Your task to perform on an android device: What's the weather going to be this weekend? Image 0: 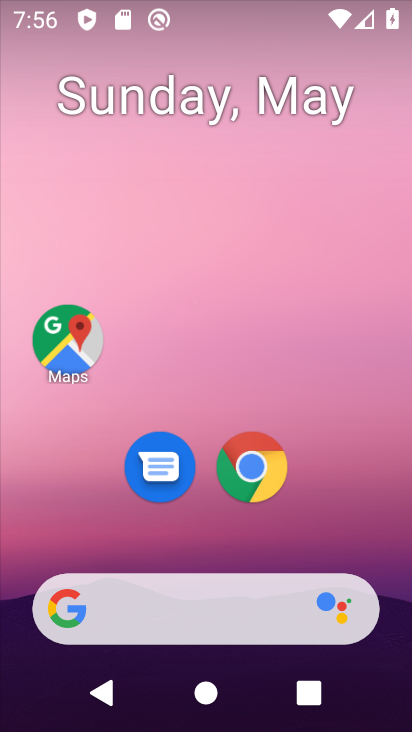
Step 0: click (173, 618)
Your task to perform on an android device: What's the weather going to be this weekend? Image 1: 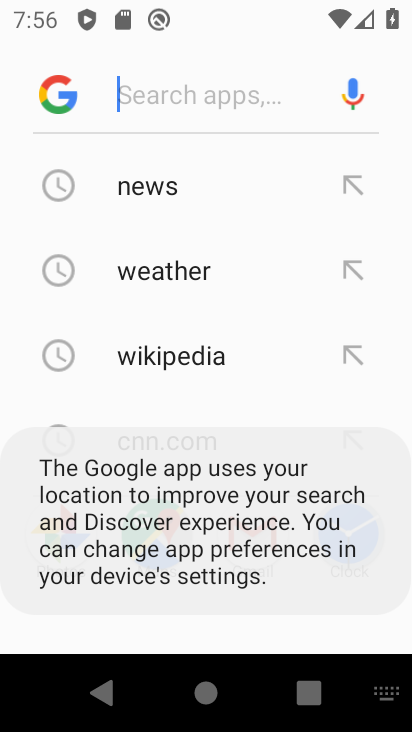
Step 1: click (192, 287)
Your task to perform on an android device: What's the weather going to be this weekend? Image 2: 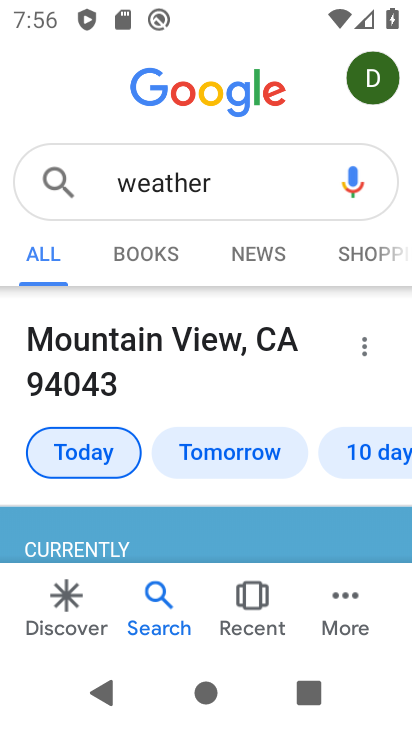
Step 2: click (379, 449)
Your task to perform on an android device: What's the weather going to be this weekend? Image 3: 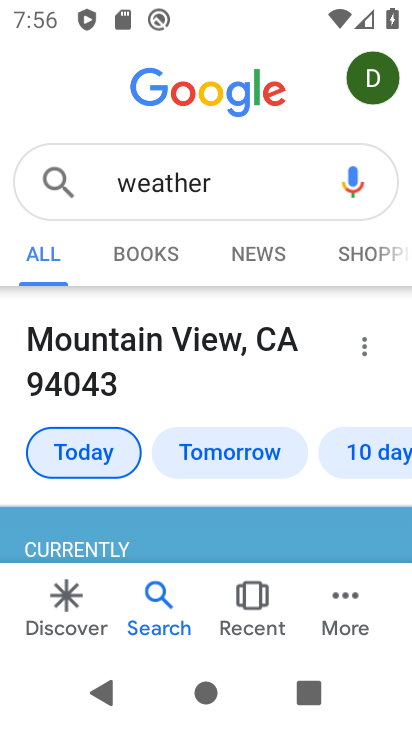
Step 3: drag from (187, 524) to (270, 207)
Your task to perform on an android device: What's the weather going to be this weekend? Image 4: 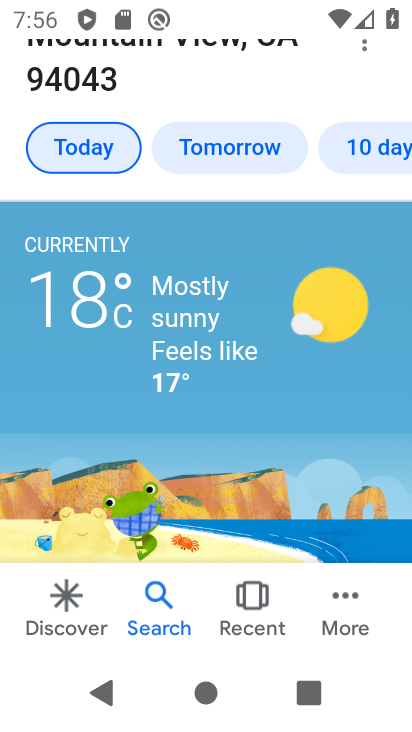
Step 4: drag from (178, 451) to (236, 97)
Your task to perform on an android device: What's the weather going to be this weekend? Image 5: 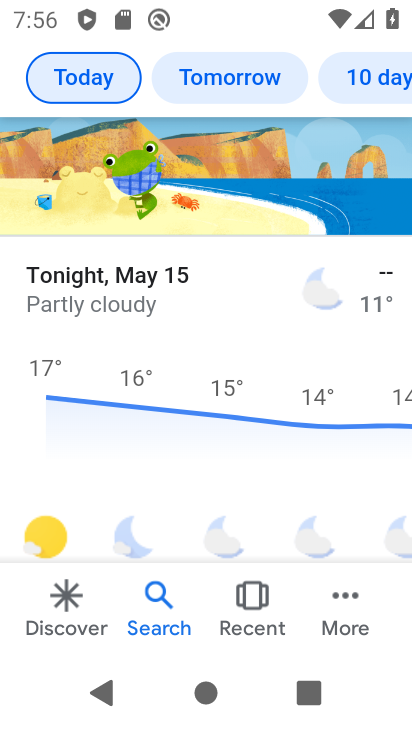
Step 5: drag from (152, 378) to (219, 160)
Your task to perform on an android device: What's the weather going to be this weekend? Image 6: 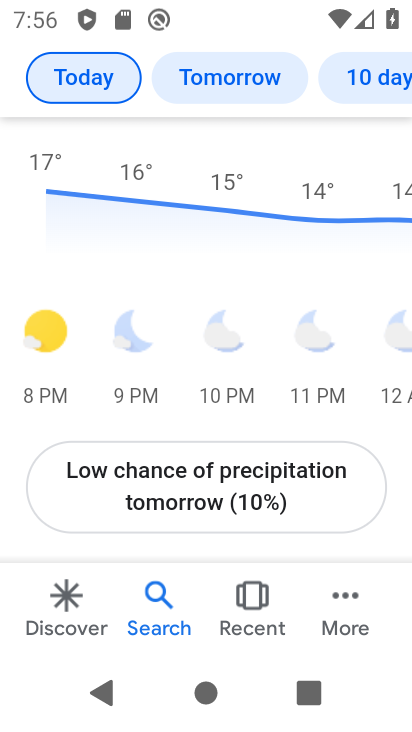
Step 6: drag from (148, 514) to (268, 173)
Your task to perform on an android device: What's the weather going to be this weekend? Image 7: 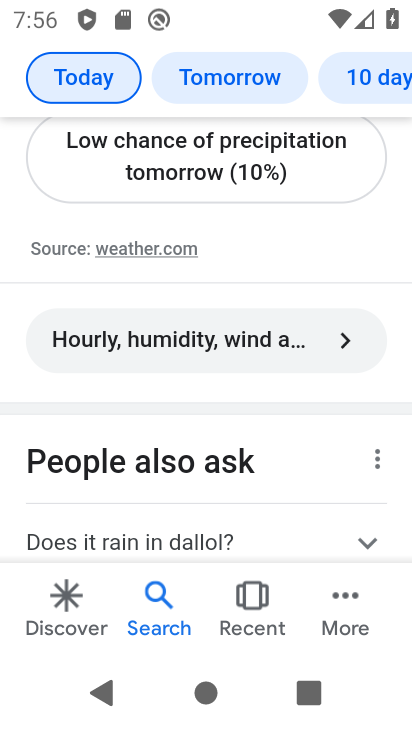
Step 7: click (155, 247)
Your task to perform on an android device: What's the weather going to be this weekend? Image 8: 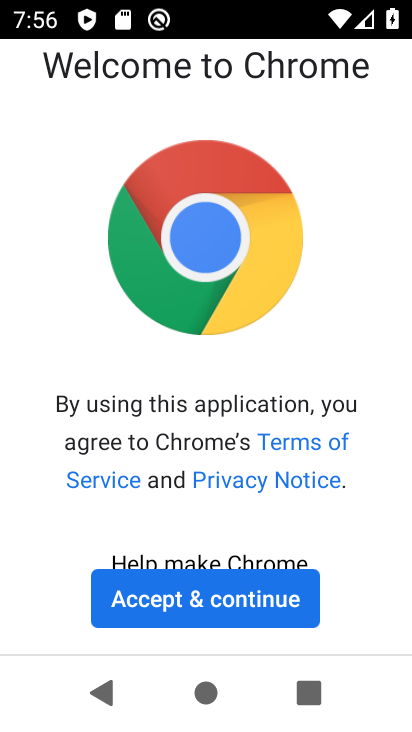
Step 8: click (162, 611)
Your task to perform on an android device: What's the weather going to be this weekend? Image 9: 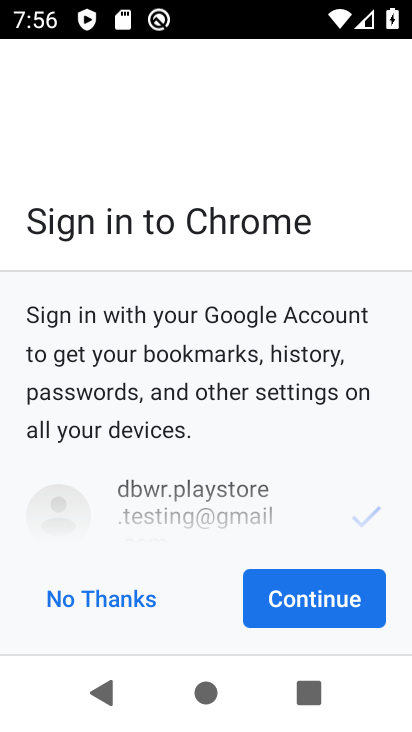
Step 9: click (286, 607)
Your task to perform on an android device: What's the weather going to be this weekend? Image 10: 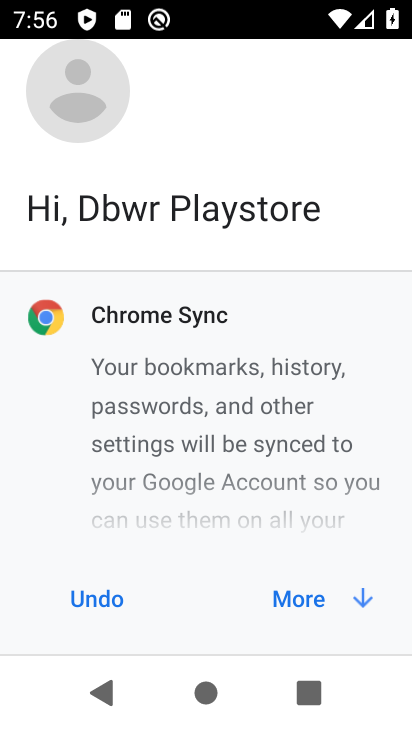
Step 10: click (286, 607)
Your task to perform on an android device: What's the weather going to be this weekend? Image 11: 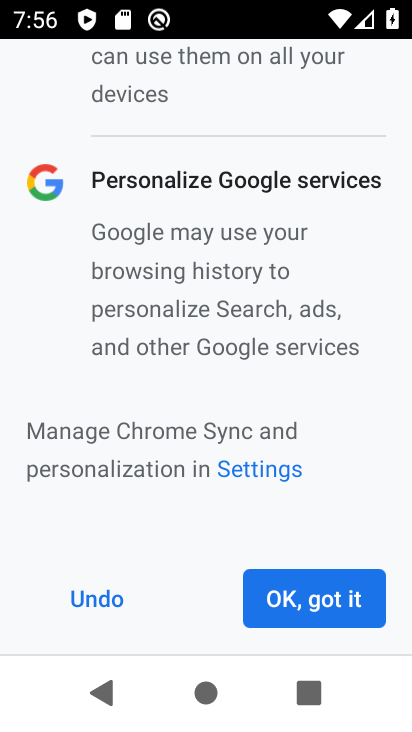
Step 11: click (286, 607)
Your task to perform on an android device: What's the weather going to be this weekend? Image 12: 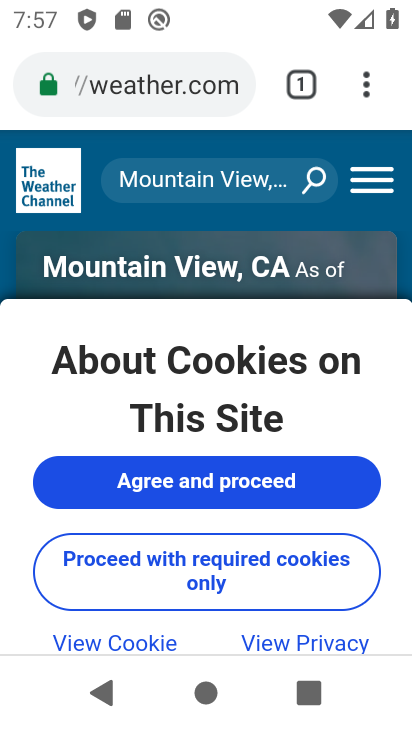
Step 12: drag from (158, 585) to (211, 278)
Your task to perform on an android device: What's the weather going to be this weekend? Image 13: 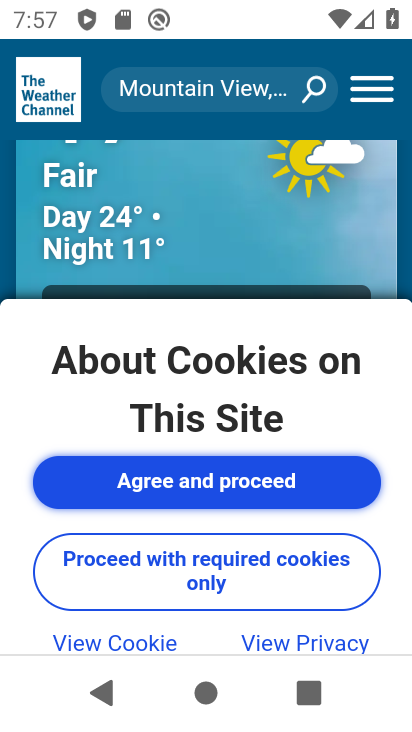
Step 13: drag from (187, 650) to (236, 153)
Your task to perform on an android device: What's the weather going to be this weekend? Image 14: 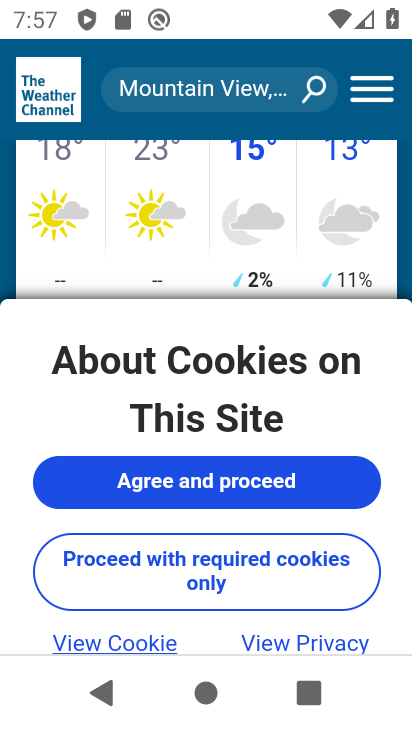
Step 14: click (213, 501)
Your task to perform on an android device: What's the weather going to be this weekend? Image 15: 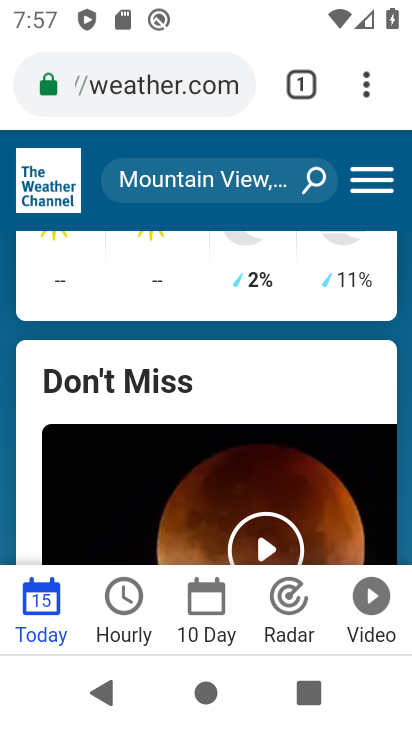
Step 15: drag from (140, 290) to (126, 557)
Your task to perform on an android device: What's the weather going to be this weekend? Image 16: 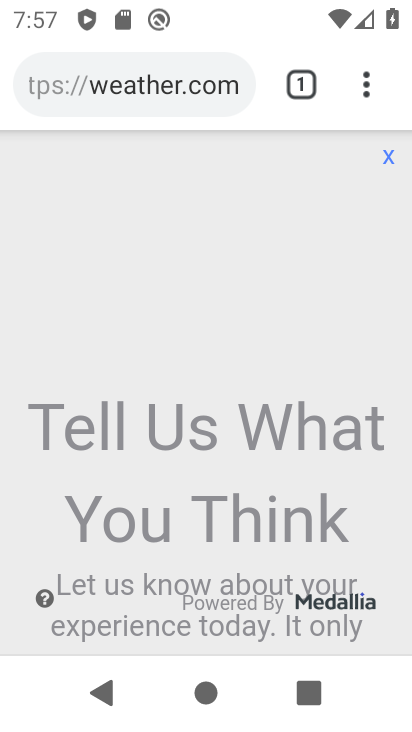
Step 16: click (381, 162)
Your task to perform on an android device: What's the weather going to be this weekend? Image 17: 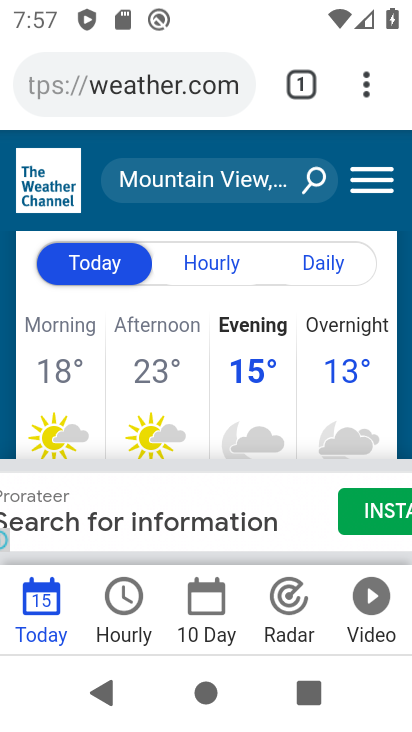
Step 17: drag from (182, 384) to (233, 150)
Your task to perform on an android device: What's the weather going to be this weekend? Image 18: 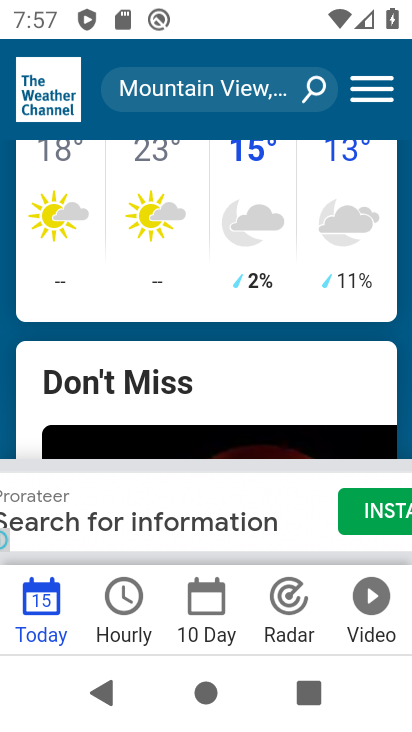
Step 18: drag from (248, 378) to (288, 129)
Your task to perform on an android device: What's the weather going to be this weekend? Image 19: 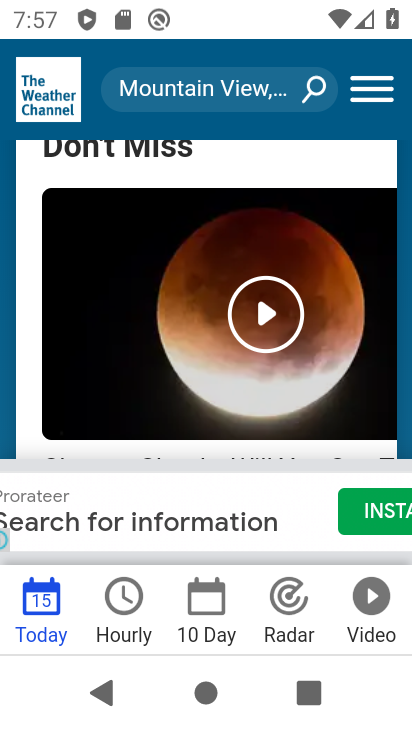
Step 19: drag from (37, 438) to (165, 131)
Your task to perform on an android device: What's the weather going to be this weekend? Image 20: 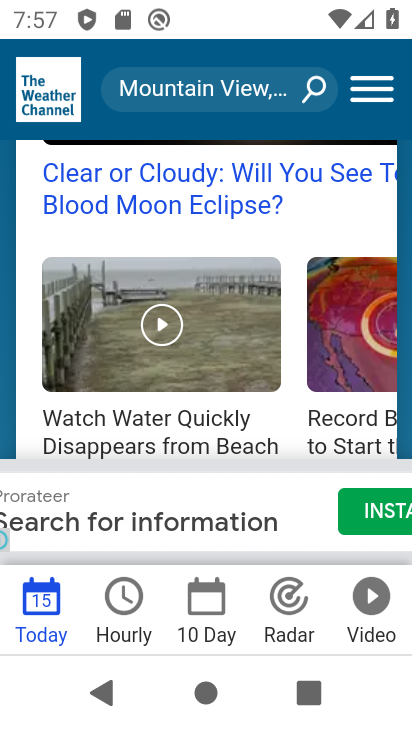
Step 20: drag from (123, 444) to (273, 71)
Your task to perform on an android device: What's the weather going to be this weekend? Image 21: 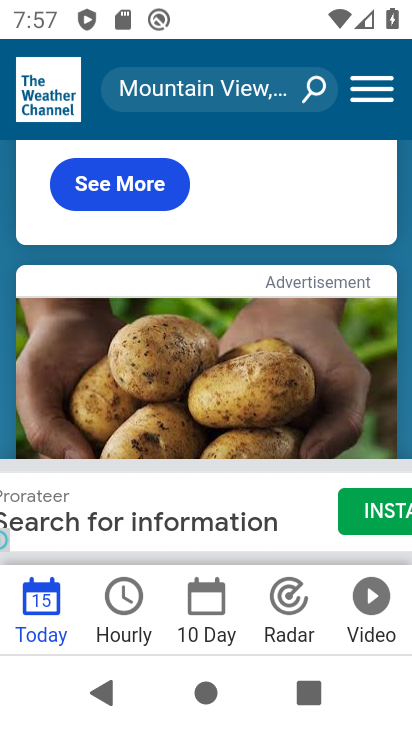
Step 21: click (368, 109)
Your task to perform on an android device: What's the weather going to be this weekend? Image 22: 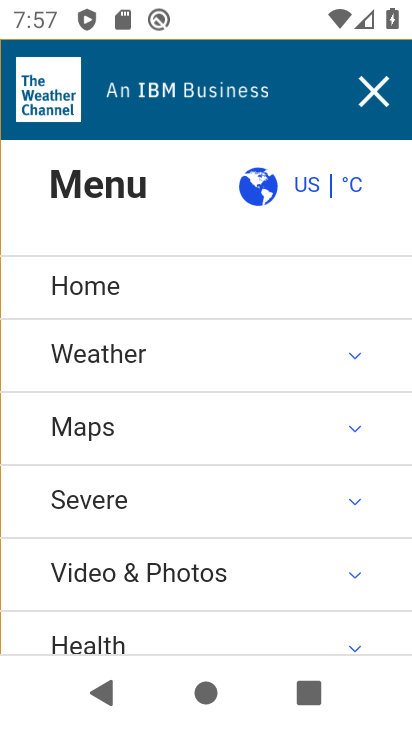
Step 22: click (381, 95)
Your task to perform on an android device: What's the weather going to be this weekend? Image 23: 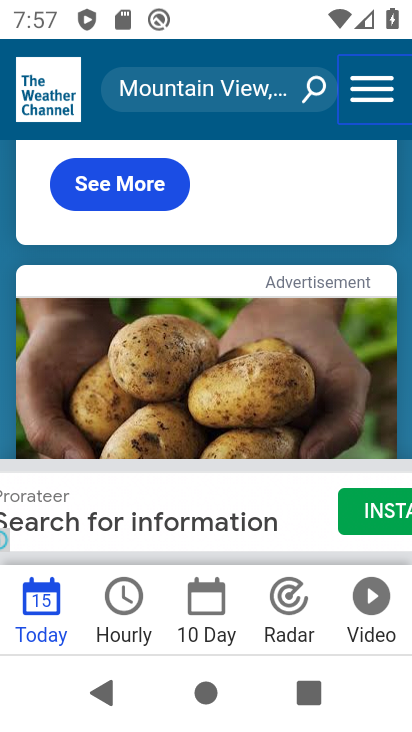
Step 23: click (212, 625)
Your task to perform on an android device: What's the weather going to be this weekend? Image 24: 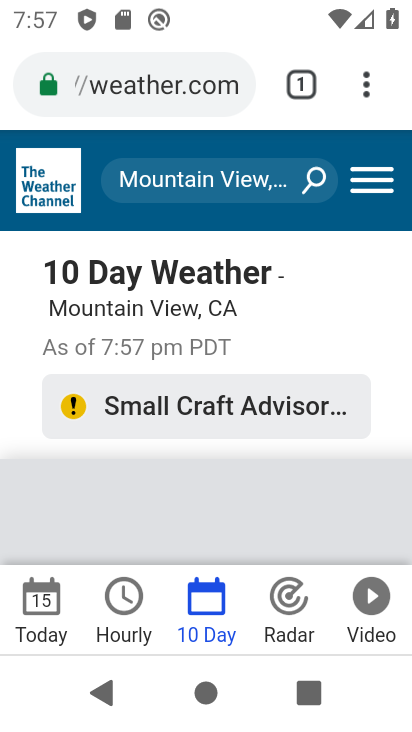
Step 24: drag from (254, 345) to (338, 13)
Your task to perform on an android device: What's the weather going to be this weekend? Image 25: 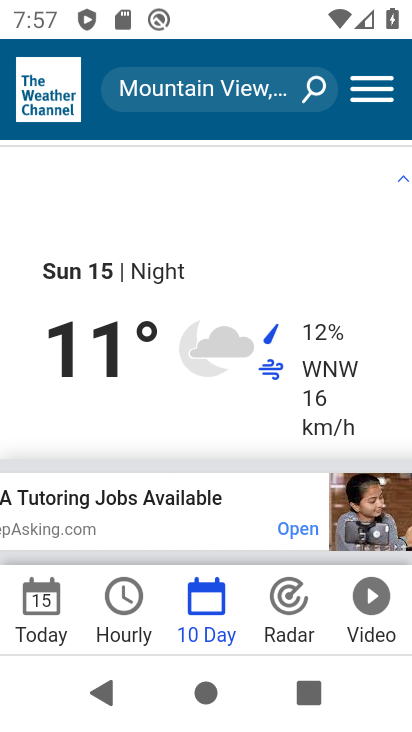
Step 25: drag from (221, 375) to (296, 34)
Your task to perform on an android device: What's the weather going to be this weekend? Image 26: 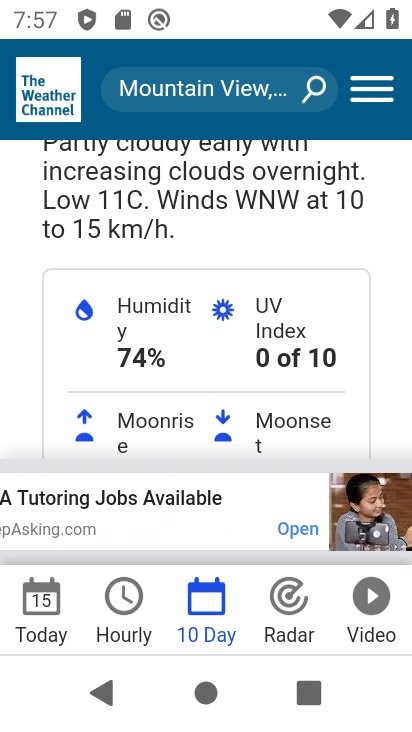
Step 26: drag from (191, 414) to (255, 118)
Your task to perform on an android device: What's the weather going to be this weekend? Image 27: 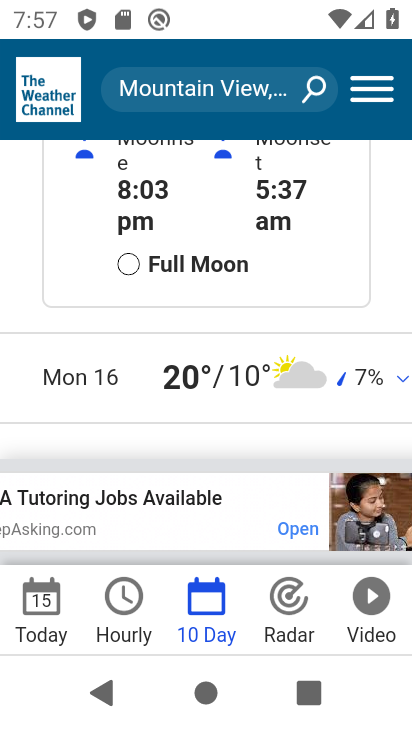
Step 27: drag from (156, 317) to (266, 81)
Your task to perform on an android device: What's the weather going to be this weekend? Image 28: 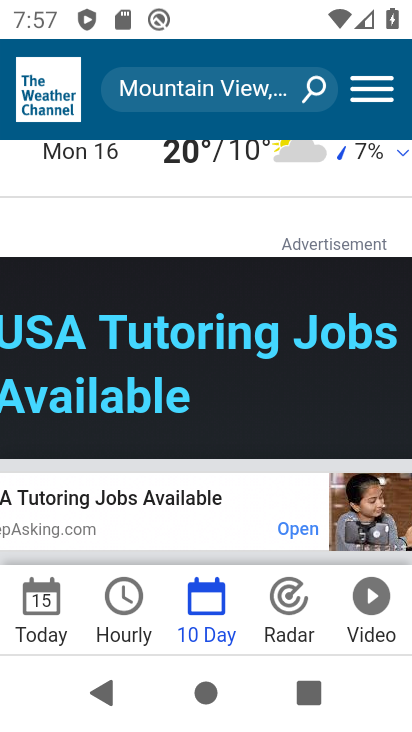
Step 28: drag from (237, 206) to (177, 473)
Your task to perform on an android device: What's the weather going to be this weekend? Image 29: 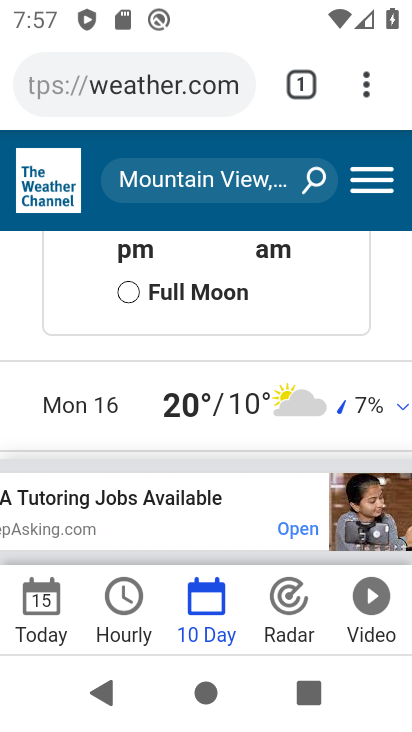
Step 29: drag from (246, 316) to (171, 586)
Your task to perform on an android device: What's the weather going to be this weekend? Image 30: 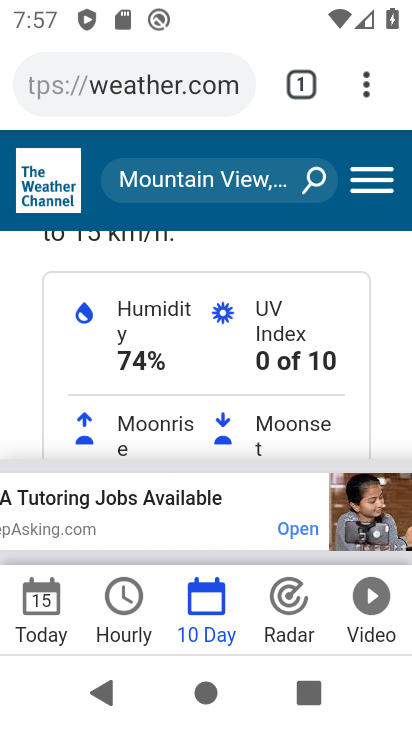
Step 30: drag from (230, 326) to (178, 602)
Your task to perform on an android device: What's the weather going to be this weekend? Image 31: 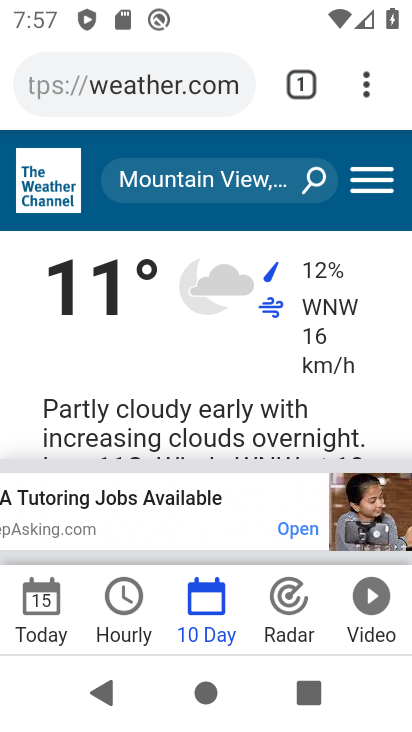
Step 31: click (196, 384)
Your task to perform on an android device: What's the weather going to be this weekend? Image 32: 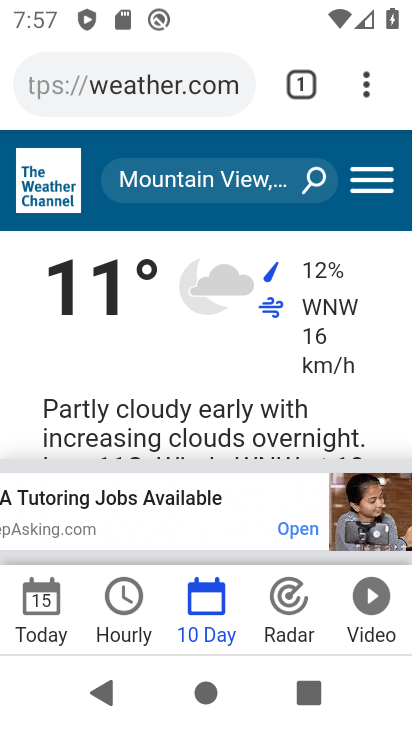
Step 32: task complete